Your task to perform on an android device: toggle priority inbox in the gmail app Image 0: 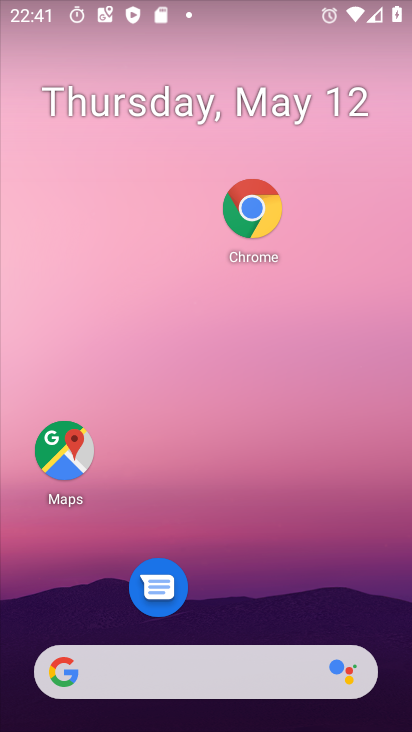
Step 0: drag from (308, 554) to (372, 138)
Your task to perform on an android device: toggle priority inbox in the gmail app Image 1: 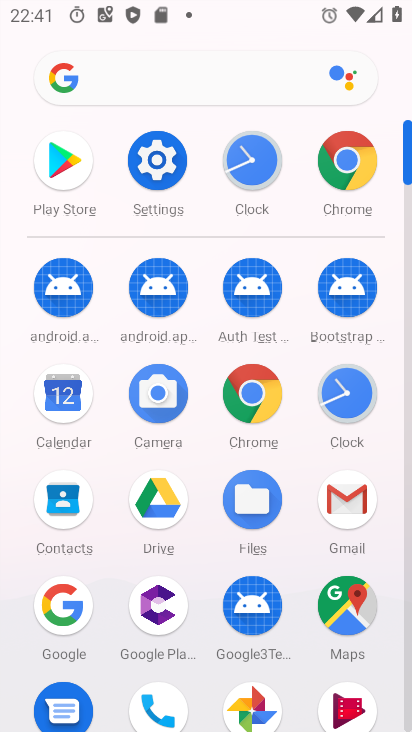
Step 1: click (338, 492)
Your task to perform on an android device: toggle priority inbox in the gmail app Image 2: 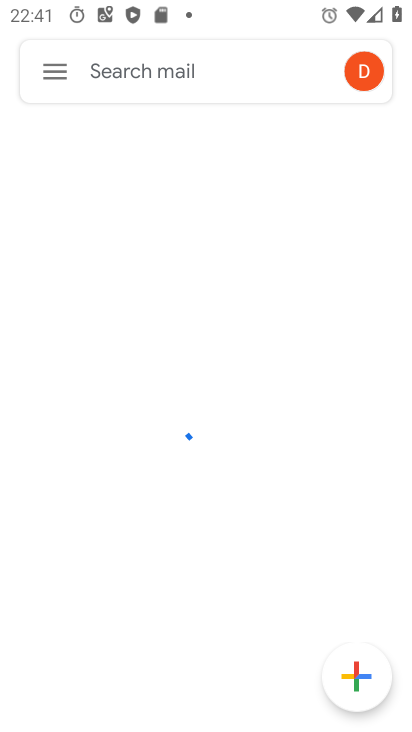
Step 2: click (47, 78)
Your task to perform on an android device: toggle priority inbox in the gmail app Image 3: 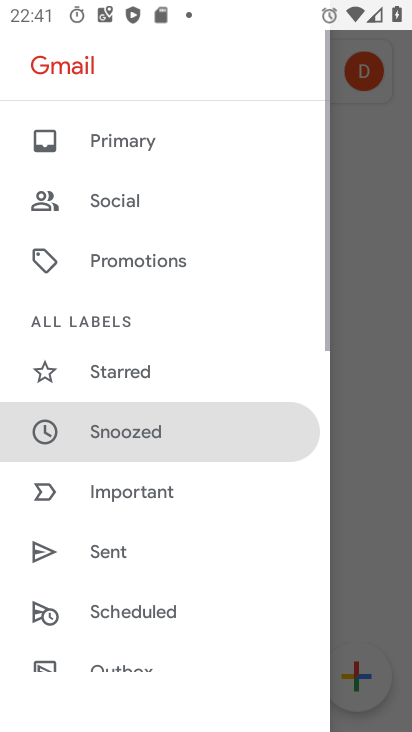
Step 3: drag from (157, 629) to (169, 187)
Your task to perform on an android device: toggle priority inbox in the gmail app Image 4: 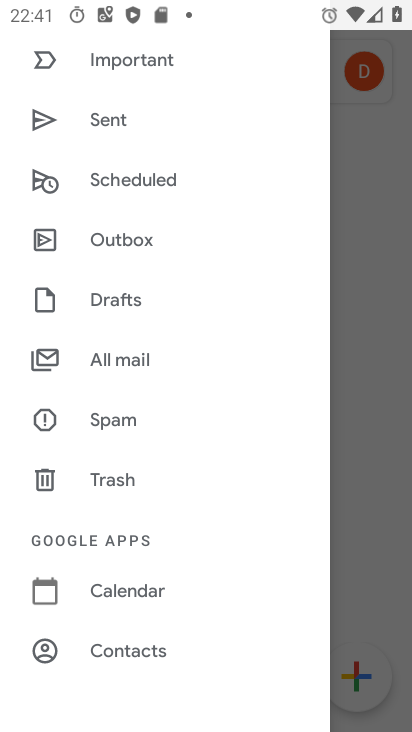
Step 4: drag from (155, 588) to (189, 116)
Your task to perform on an android device: toggle priority inbox in the gmail app Image 5: 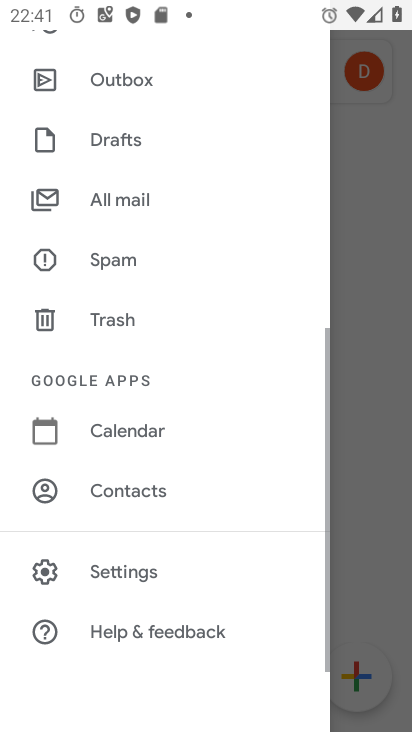
Step 5: click (152, 555)
Your task to perform on an android device: toggle priority inbox in the gmail app Image 6: 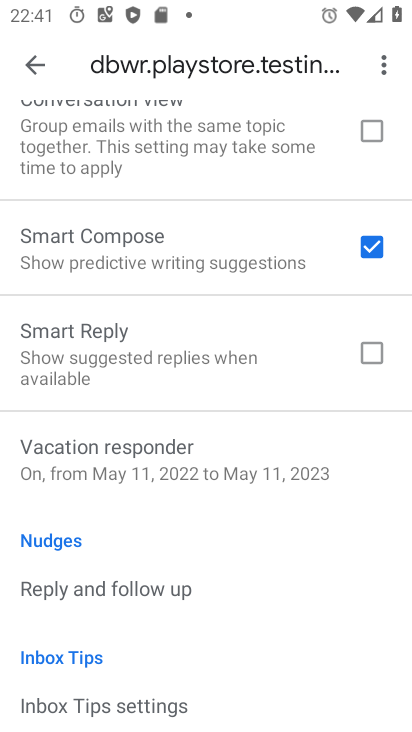
Step 6: drag from (201, 201) to (225, 654)
Your task to perform on an android device: toggle priority inbox in the gmail app Image 7: 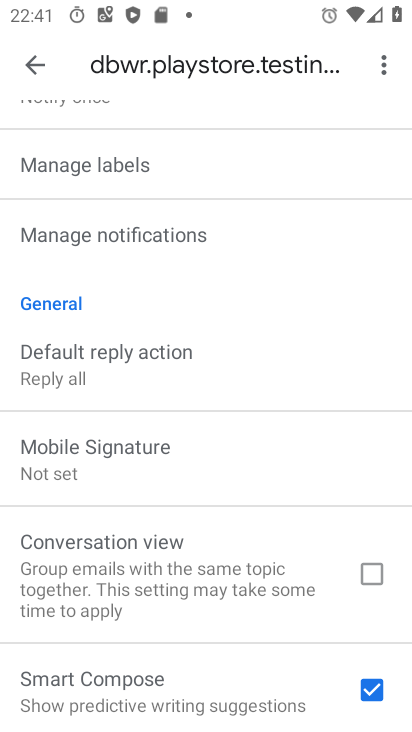
Step 7: drag from (196, 89) to (153, 524)
Your task to perform on an android device: toggle priority inbox in the gmail app Image 8: 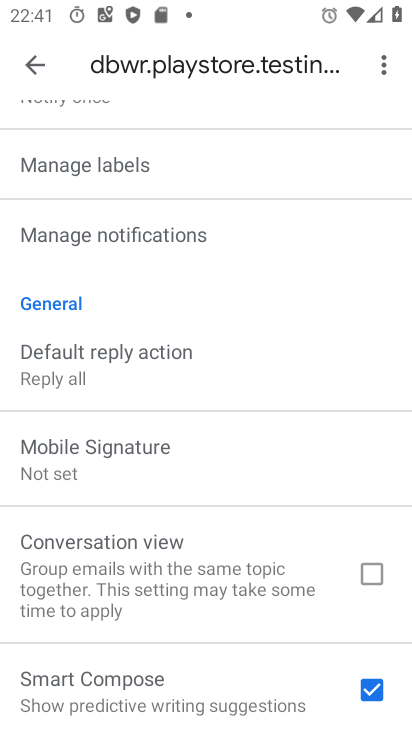
Step 8: drag from (170, 265) to (189, 606)
Your task to perform on an android device: toggle priority inbox in the gmail app Image 9: 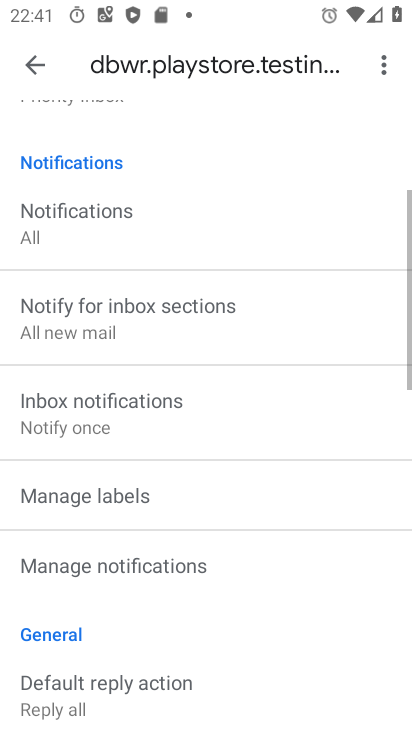
Step 9: drag from (189, 310) to (198, 520)
Your task to perform on an android device: toggle priority inbox in the gmail app Image 10: 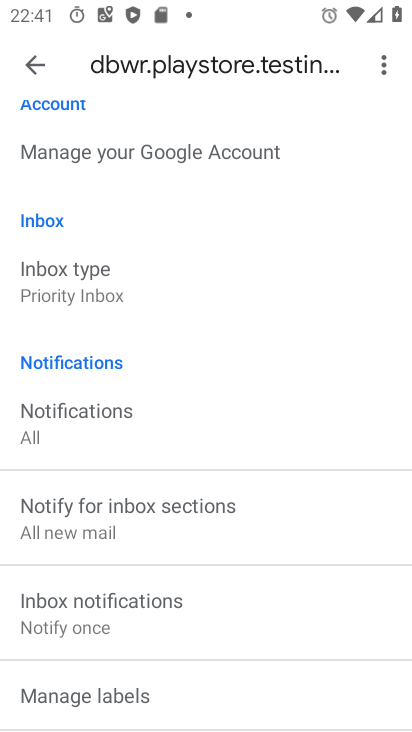
Step 10: click (118, 277)
Your task to perform on an android device: toggle priority inbox in the gmail app Image 11: 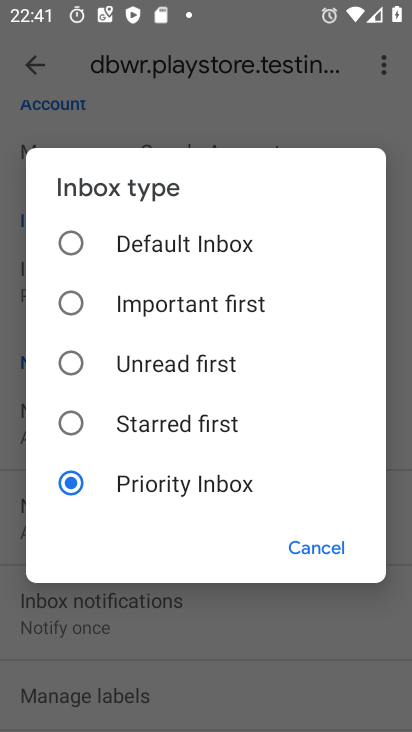
Step 11: click (139, 228)
Your task to perform on an android device: toggle priority inbox in the gmail app Image 12: 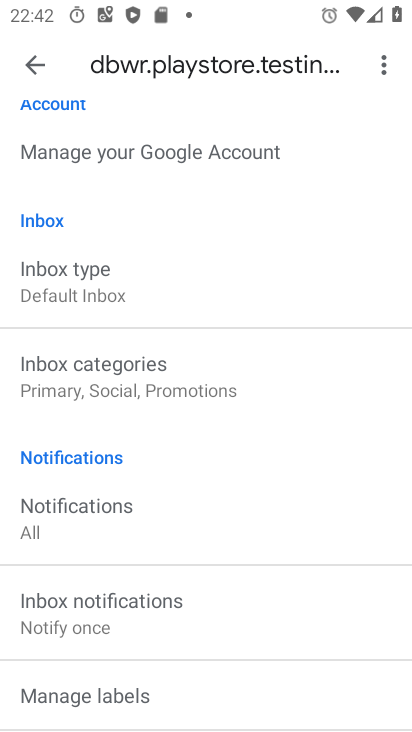
Step 12: task complete